Your task to perform on an android device: Go to accessibility settings Image 0: 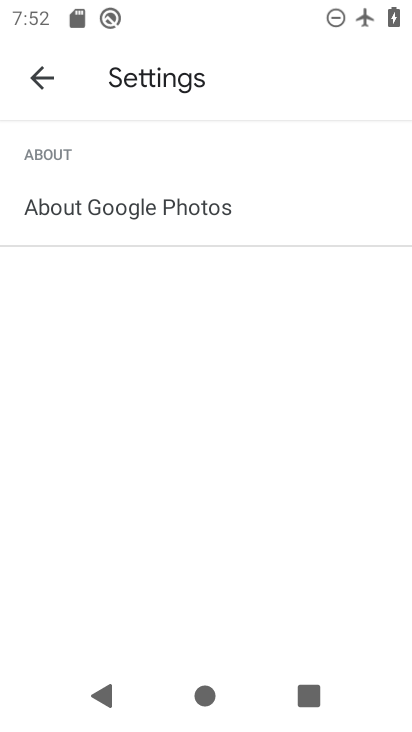
Step 0: press home button
Your task to perform on an android device: Go to accessibility settings Image 1: 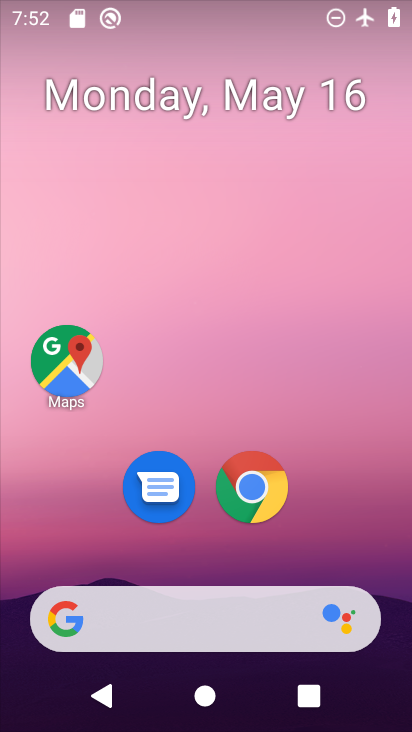
Step 1: drag from (282, 540) to (281, 0)
Your task to perform on an android device: Go to accessibility settings Image 2: 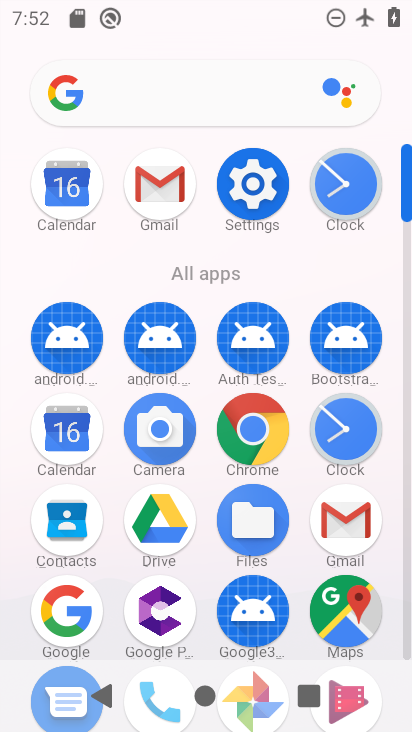
Step 2: click (252, 192)
Your task to perform on an android device: Go to accessibility settings Image 3: 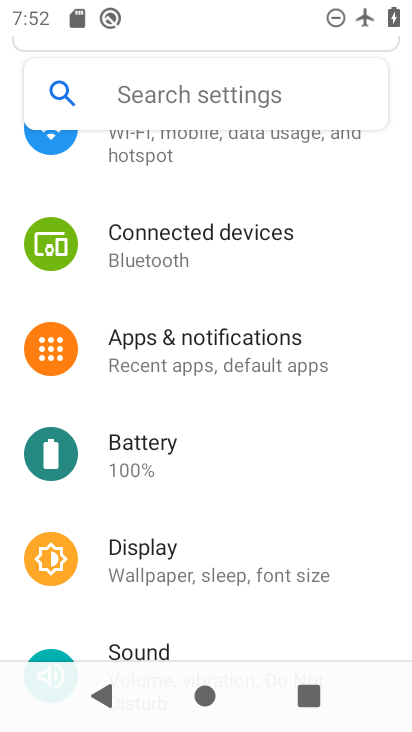
Step 3: drag from (189, 525) to (253, 110)
Your task to perform on an android device: Go to accessibility settings Image 4: 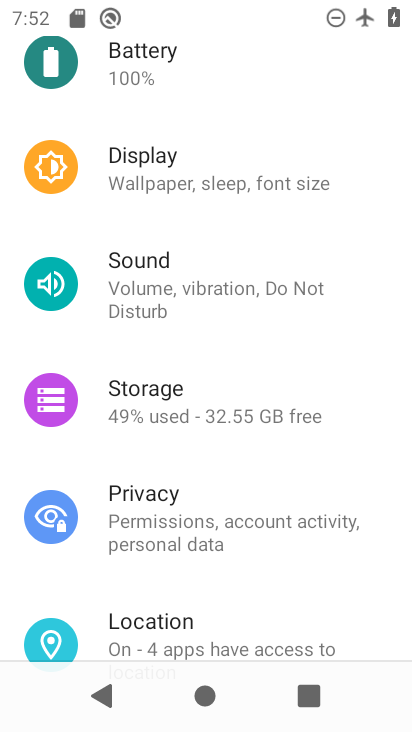
Step 4: drag from (261, 563) to (288, 50)
Your task to perform on an android device: Go to accessibility settings Image 5: 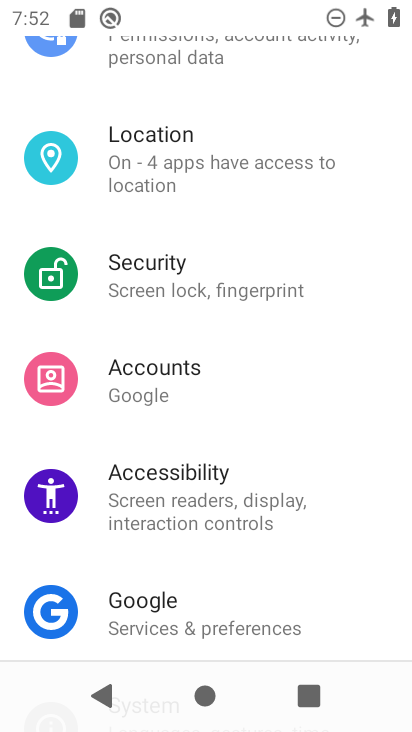
Step 5: click (217, 486)
Your task to perform on an android device: Go to accessibility settings Image 6: 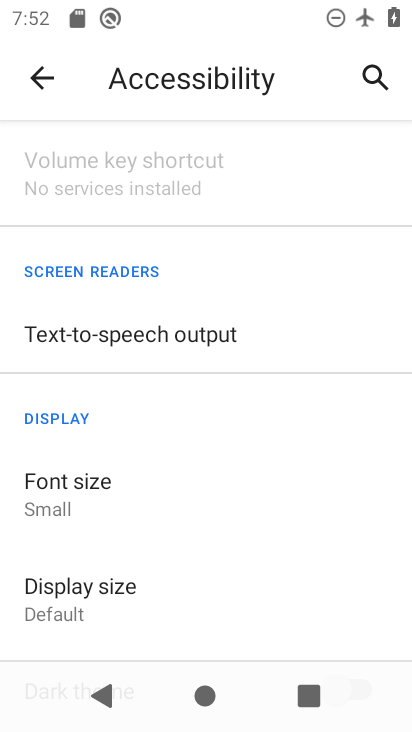
Step 6: task complete